Your task to perform on an android device: toggle wifi Image 0: 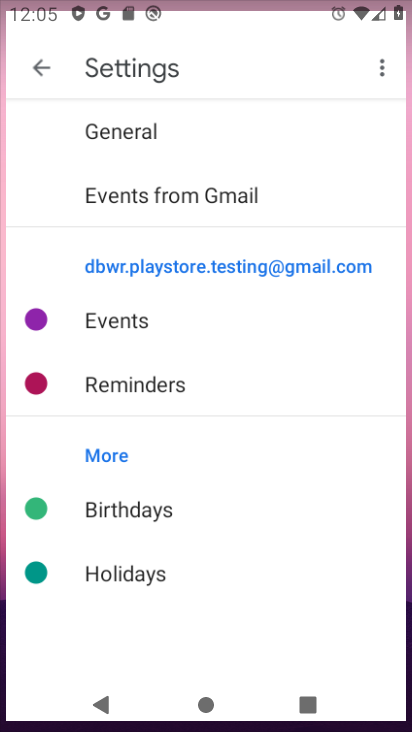
Step 0: drag from (332, 551) to (334, 46)
Your task to perform on an android device: toggle wifi Image 1: 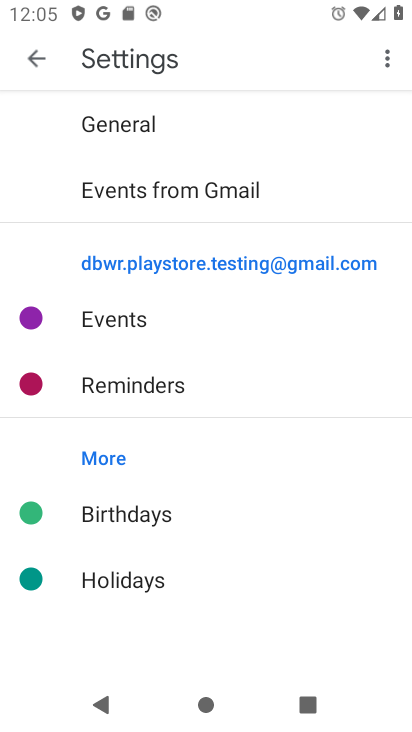
Step 1: press home button
Your task to perform on an android device: toggle wifi Image 2: 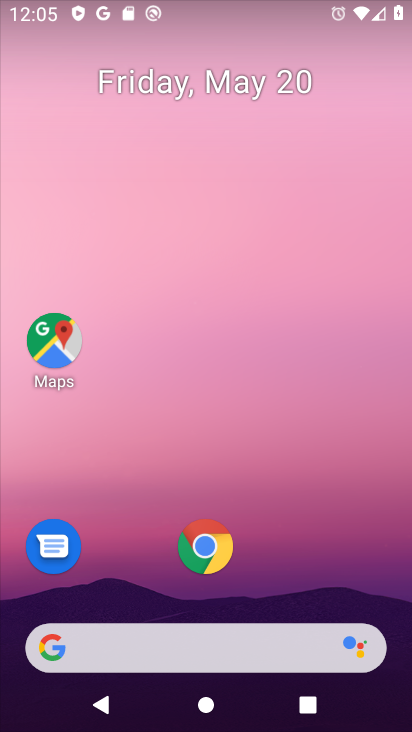
Step 2: drag from (298, 561) to (280, 3)
Your task to perform on an android device: toggle wifi Image 3: 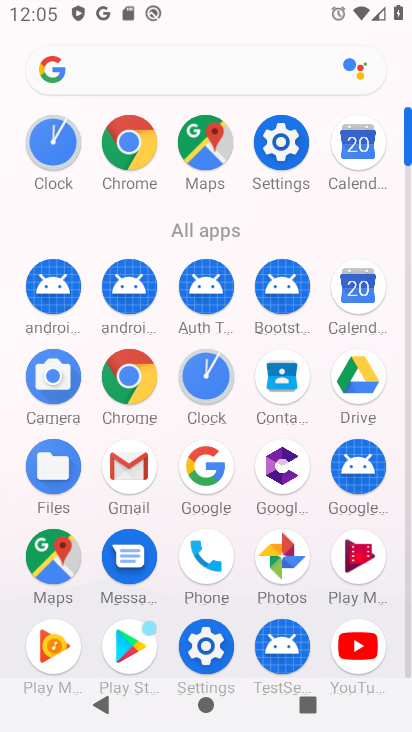
Step 3: click (279, 150)
Your task to perform on an android device: toggle wifi Image 4: 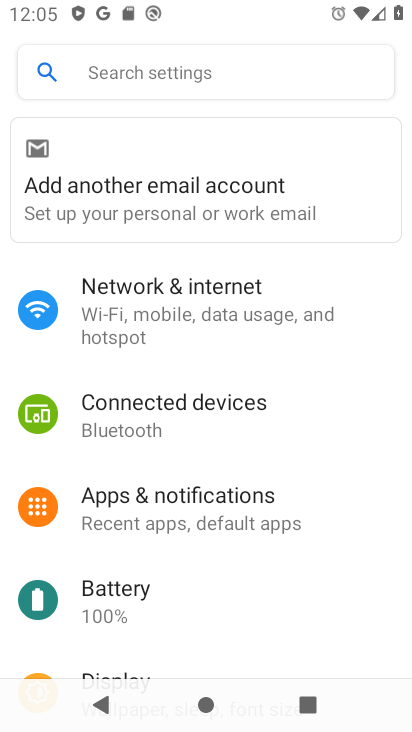
Step 4: drag from (222, 557) to (243, 409)
Your task to perform on an android device: toggle wifi Image 5: 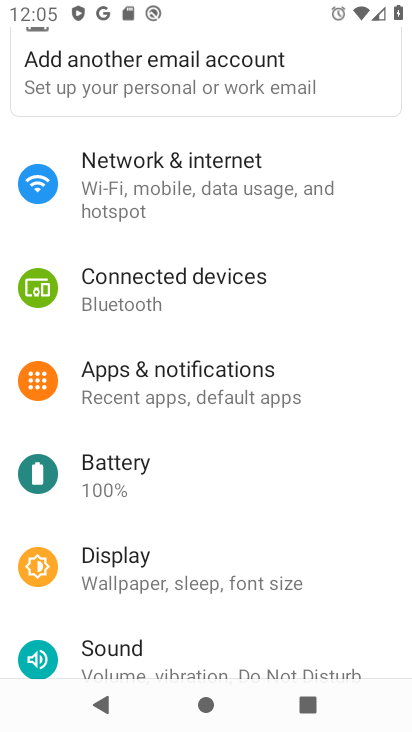
Step 5: click (207, 220)
Your task to perform on an android device: toggle wifi Image 6: 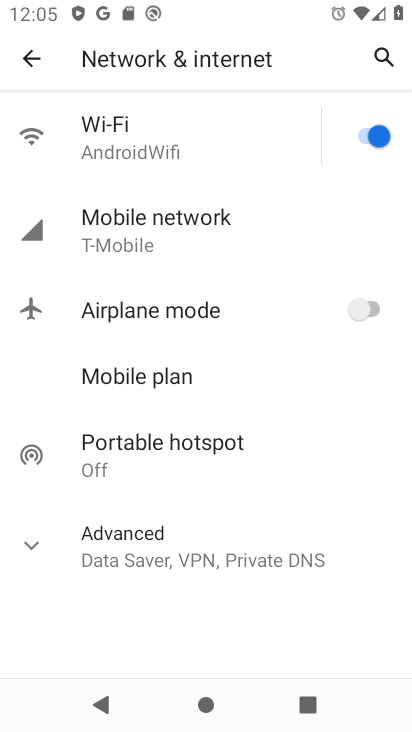
Step 6: drag from (192, 130) to (352, 133)
Your task to perform on an android device: toggle wifi Image 7: 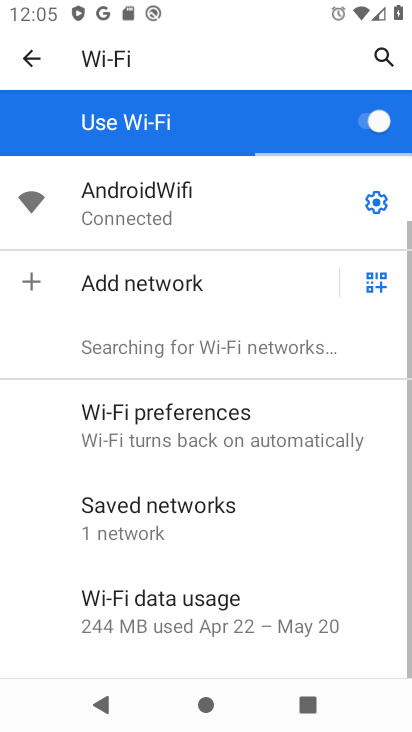
Step 7: click (373, 127)
Your task to perform on an android device: toggle wifi Image 8: 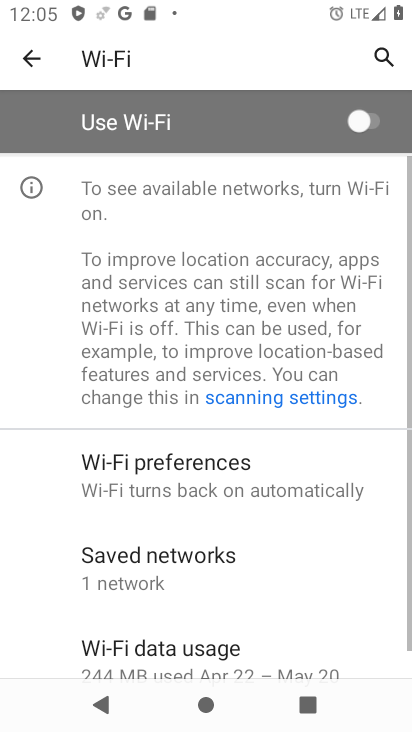
Step 8: task complete